Your task to perform on an android device: set the stopwatch Image 0: 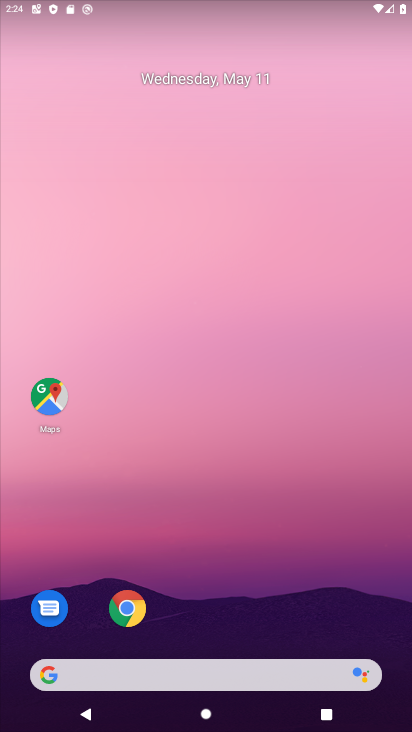
Step 0: drag from (240, 597) to (262, 254)
Your task to perform on an android device: set the stopwatch Image 1: 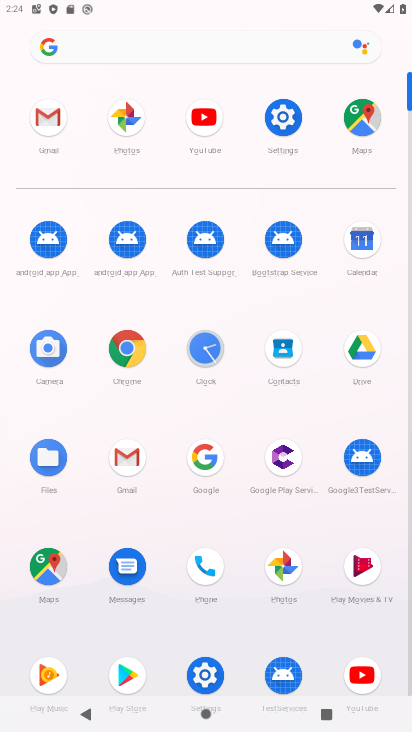
Step 1: click (200, 348)
Your task to perform on an android device: set the stopwatch Image 2: 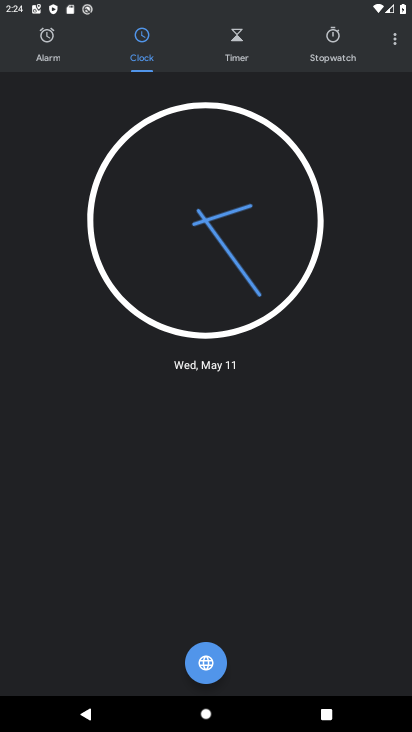
Step 2: click (333, 40)
Your task to perform on an android device: set the stopwatch Image 3: 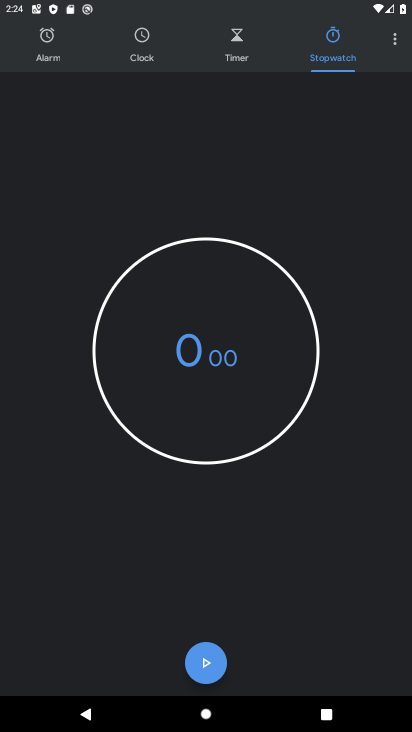
Step 3: click (212, 649)
Your task to perform on an android device: set the stopwatch Image 4: 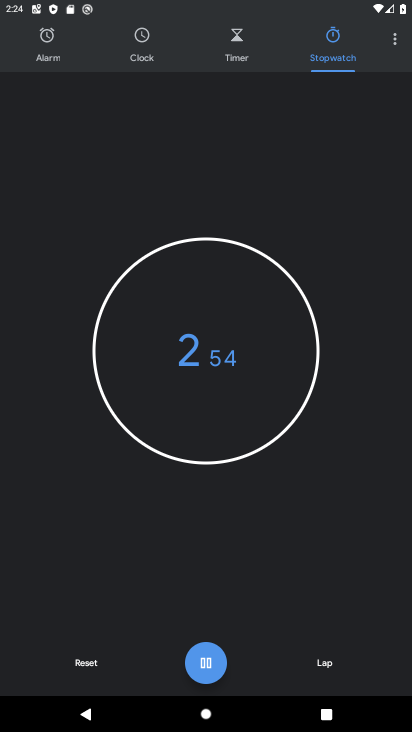
Step 4: task complete